Your task to perform on an android device: change notification settings in the gmail app Image 0: 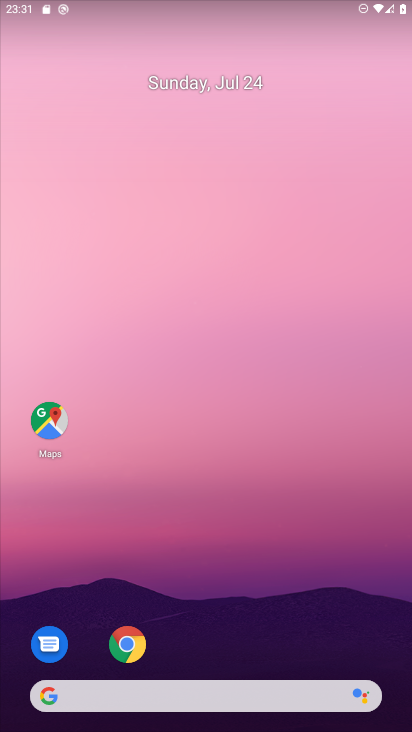
Step 0: drag from (362, 655) to (377, 94)
Your task to perform on an android device: change notification settings in the gmail app Image 1: 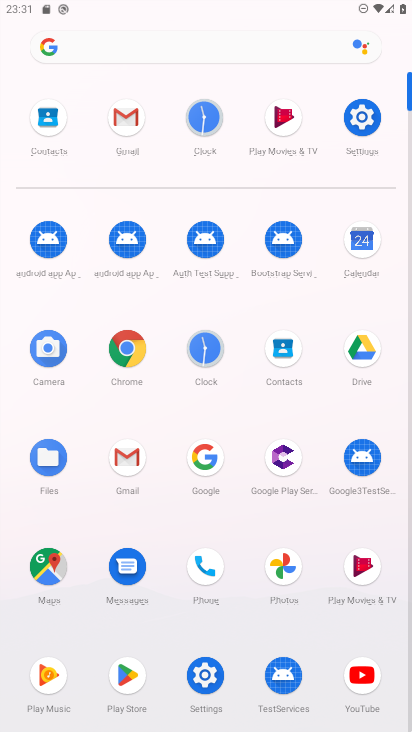
Step 1: click (128, 459)
Your task to perform on an android device: change notification settings in the gmail app Image 2: 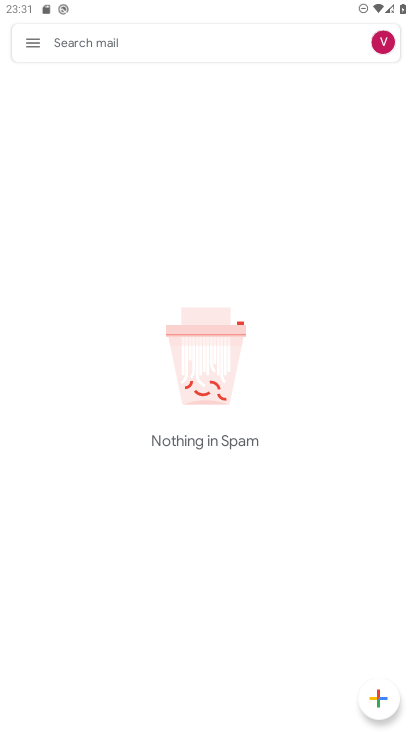
Step 2: click (33, 45)
Your task to perform on an android device: change notification settings in the gmail app Image 3: 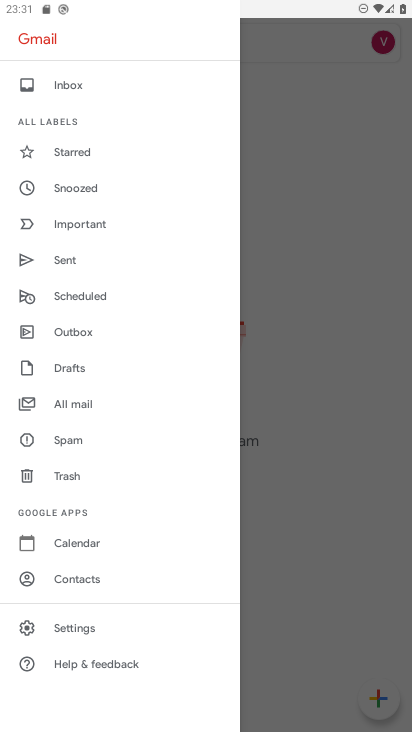
Step 3: click (70, 611)
Your task to perform on an android device: change notification settings in the gmail app Image 4: 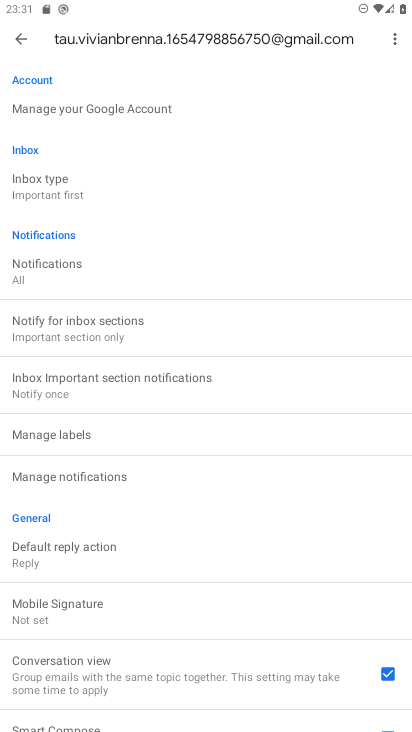
Step 4: click (76, 470)
Your task to perform on an android device: change notification settings in the gmail app Image 5: 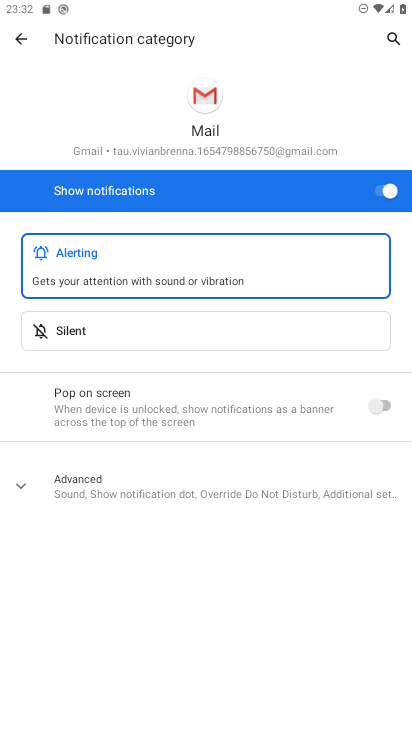
Step 5: click (377, 193)
Your task to perform on an android device: change notification settings in the gmail app Image 6: 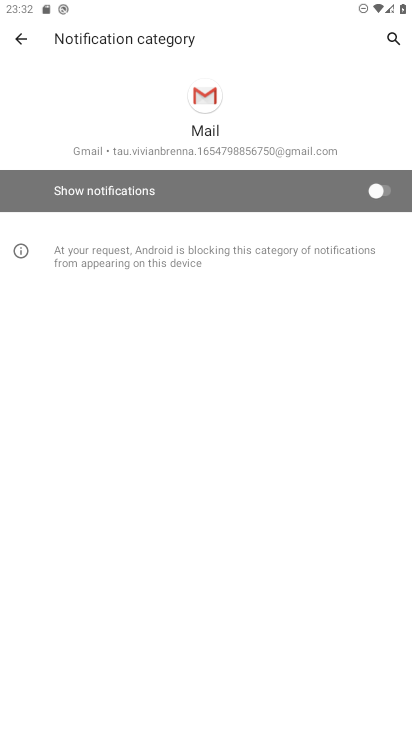
Step 6: task complete